Your task to perform on an android device: find photos in the google photos app Image 0: 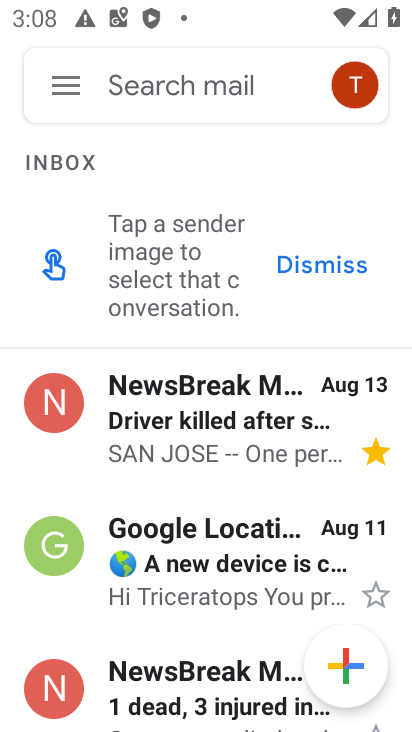
Step 0: press home button
Your task to perform on an android device: find photos in the google photos app Image 1: 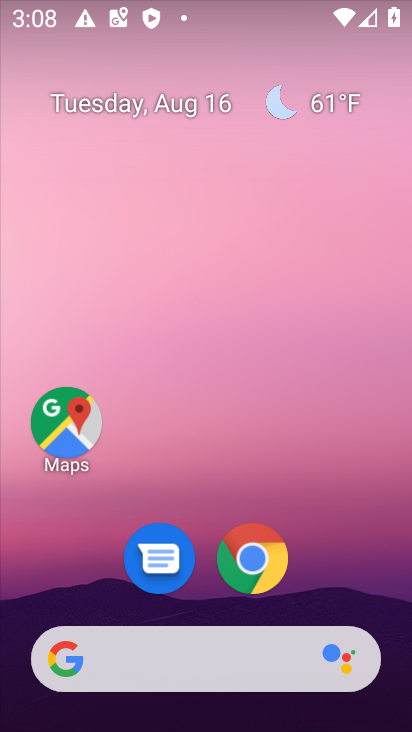
Step 1: drag from (390, 611) to (355, 143)
Your task to perform on an android device: find photos in the google photos app Image 2: 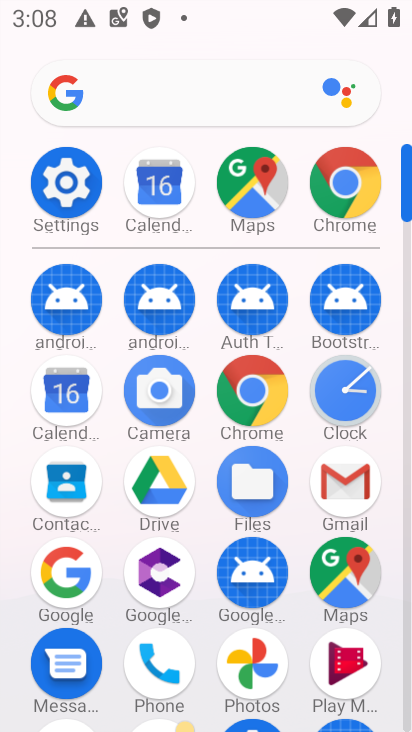
Step 2: click (408, 702)
Your task to perform on an android device: find photos in the google photos app Image 3: 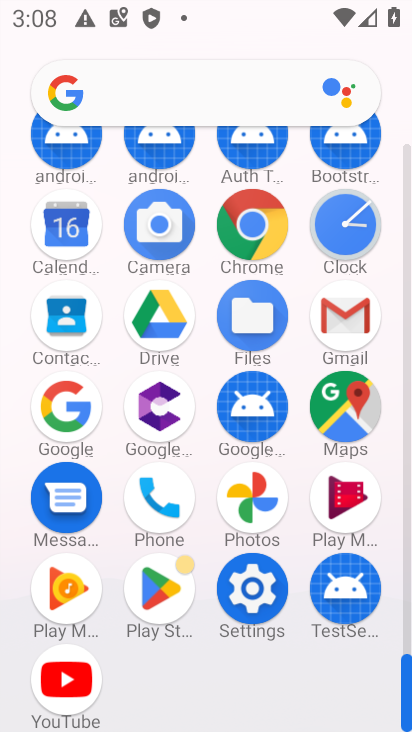
Step 3: click (252, 495)
Your task to perform on an android device: find photos in the google photos app Image 4: 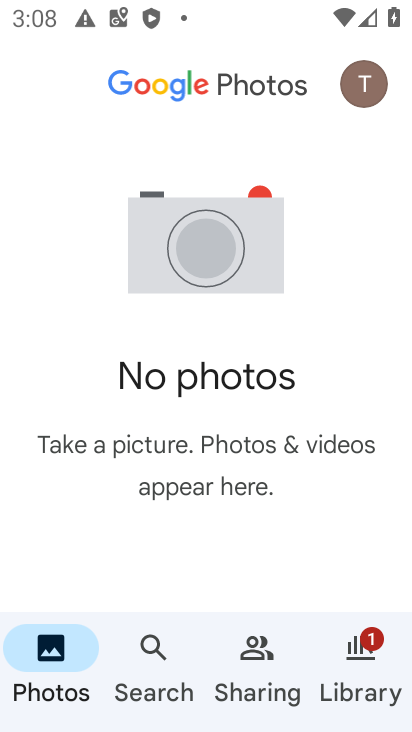
Step 4: task complete